Your task to perform on an android device: Show me productivity apps on the Play Store Image 0: 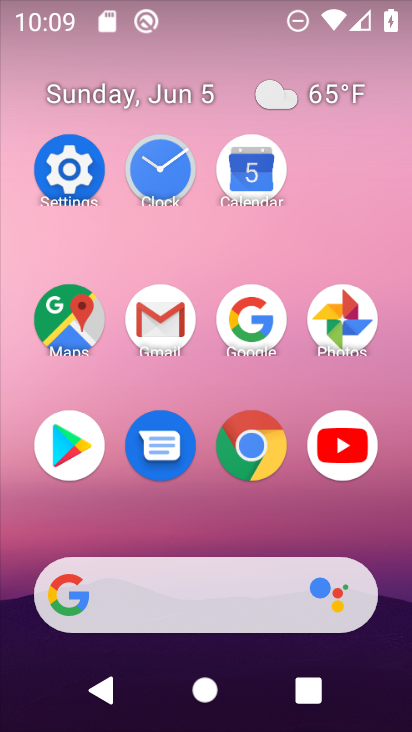
Step 0: click (82, 448)
Your task to perform on an android device: Show me productivity apps on the Play Store Image 1: 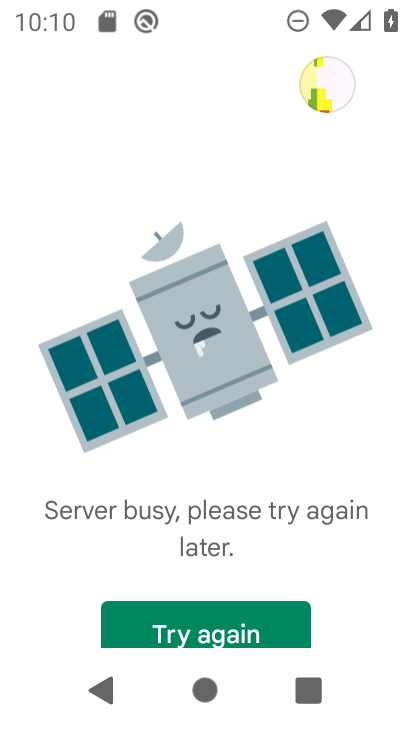
Step 1: click (194, 624)
Your task to perform on an android device: Show me productivity apps on the Play Store Image 2: 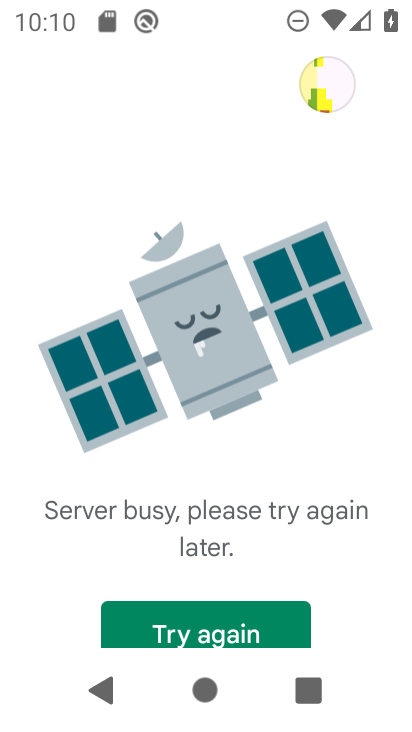
Step 2: task complete